Your task to perform on an android device: Add "usb-b" to the cart on amazon Image 0: 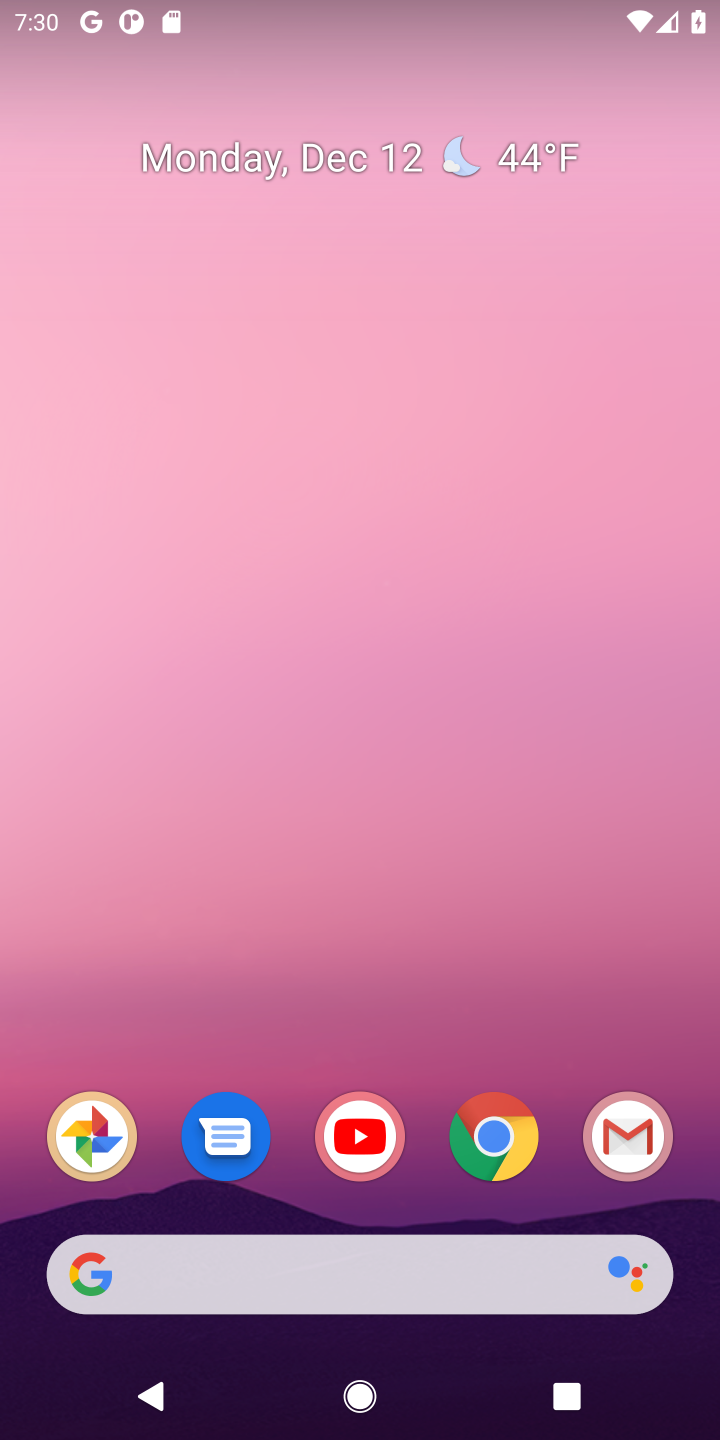
Step 0: click (499, 1143)
Your task to perform on an android device: Add "usb-b" to the cart on amazon Image 1: 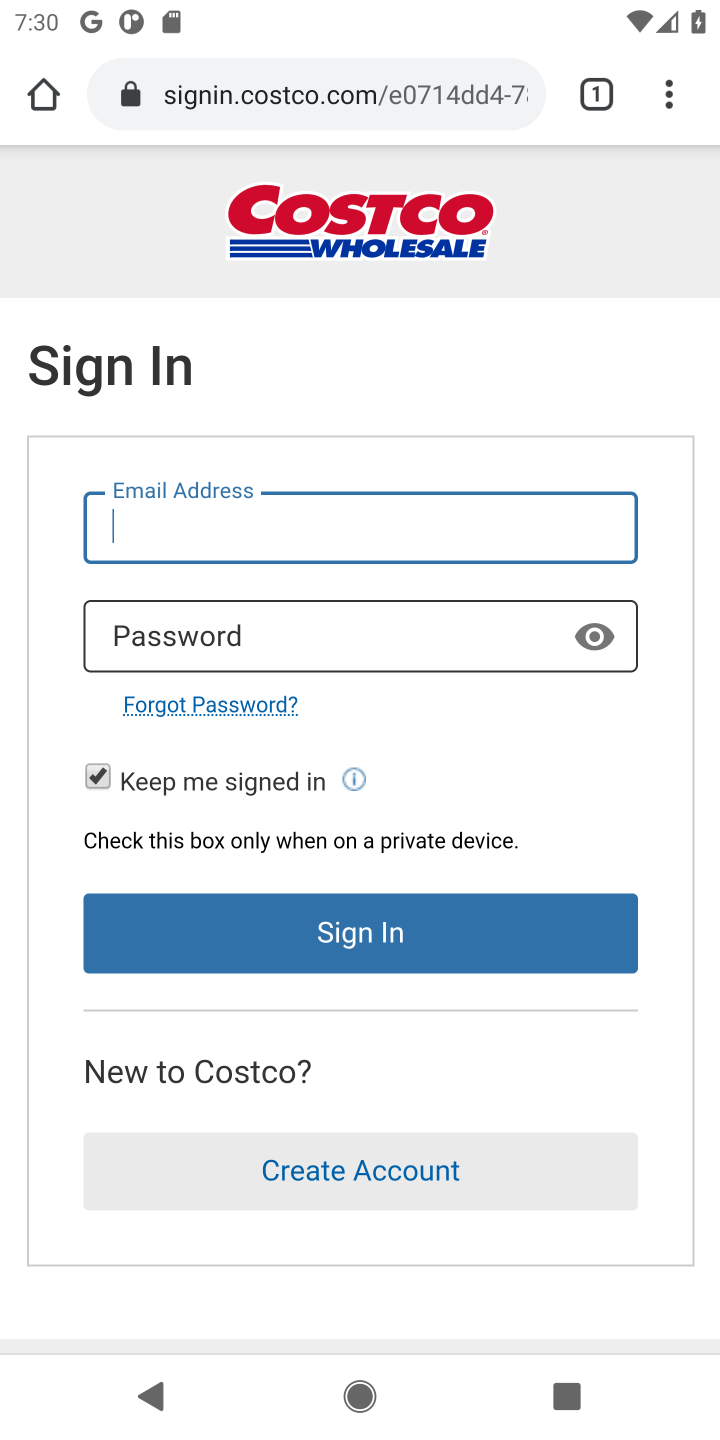
Step 1: click (313, 101)
Your task to perform on an android device: Add "usb-b" to the cart on amazon Image 2: 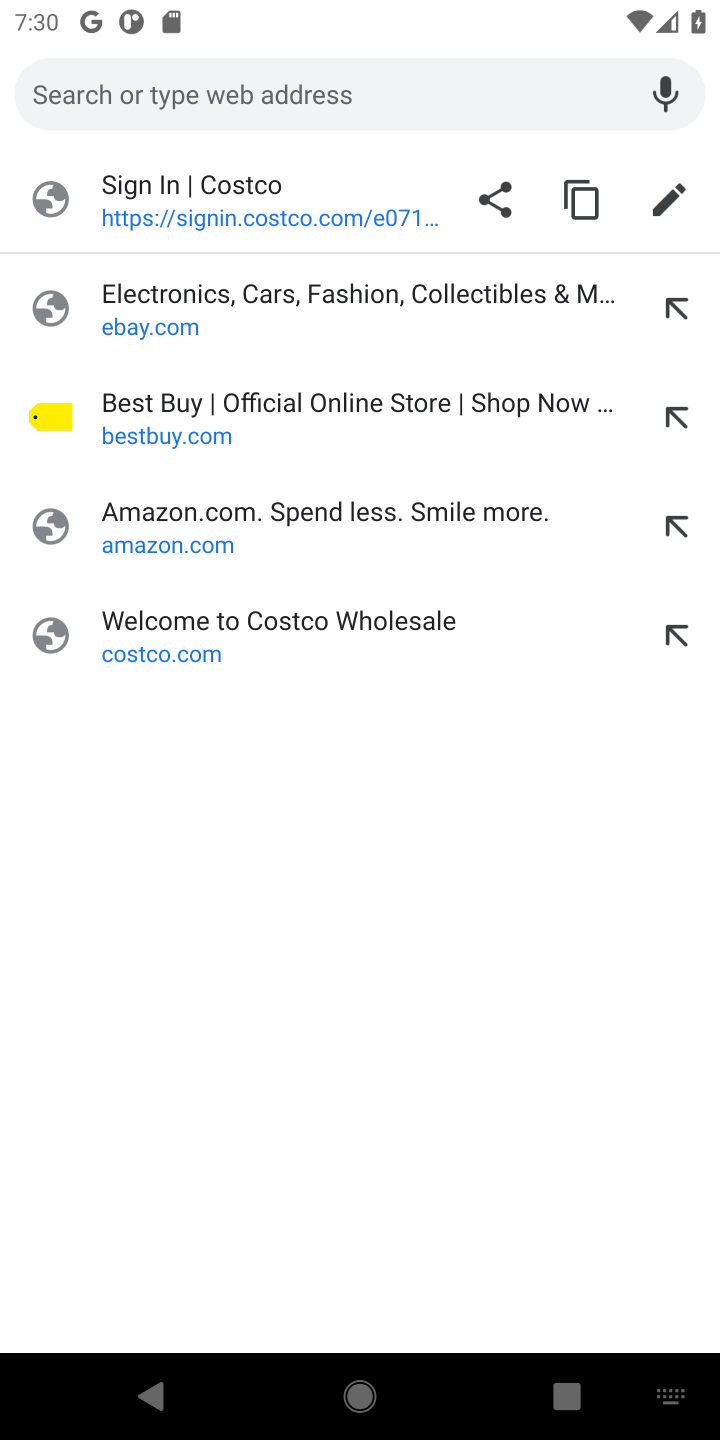
Step 2: click (142, 532)
Your task to perform on an android device: Add "usb-b" to the cart on amazon Image 3: 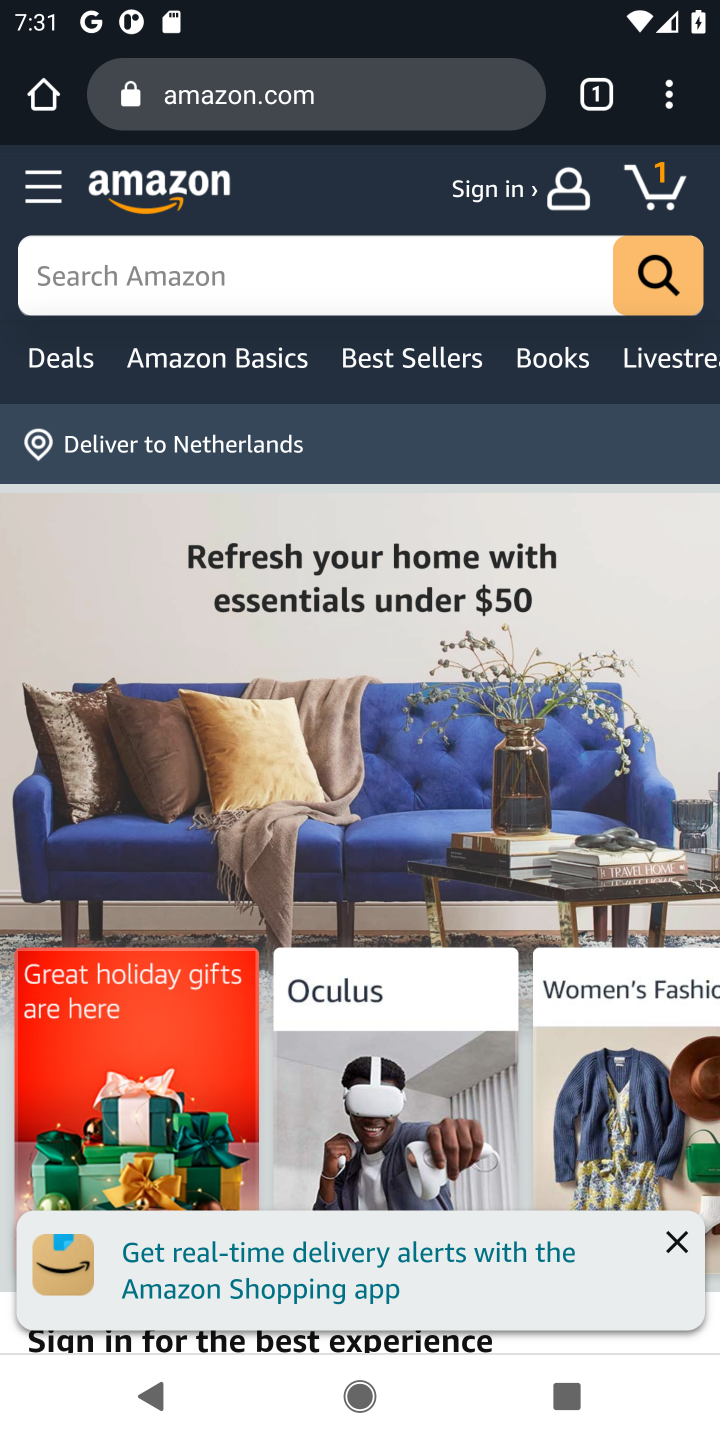
Step 3: click (187, 288)
Your task to perform on an android device: Add "usb-b" to the cart on amazon Image 4: 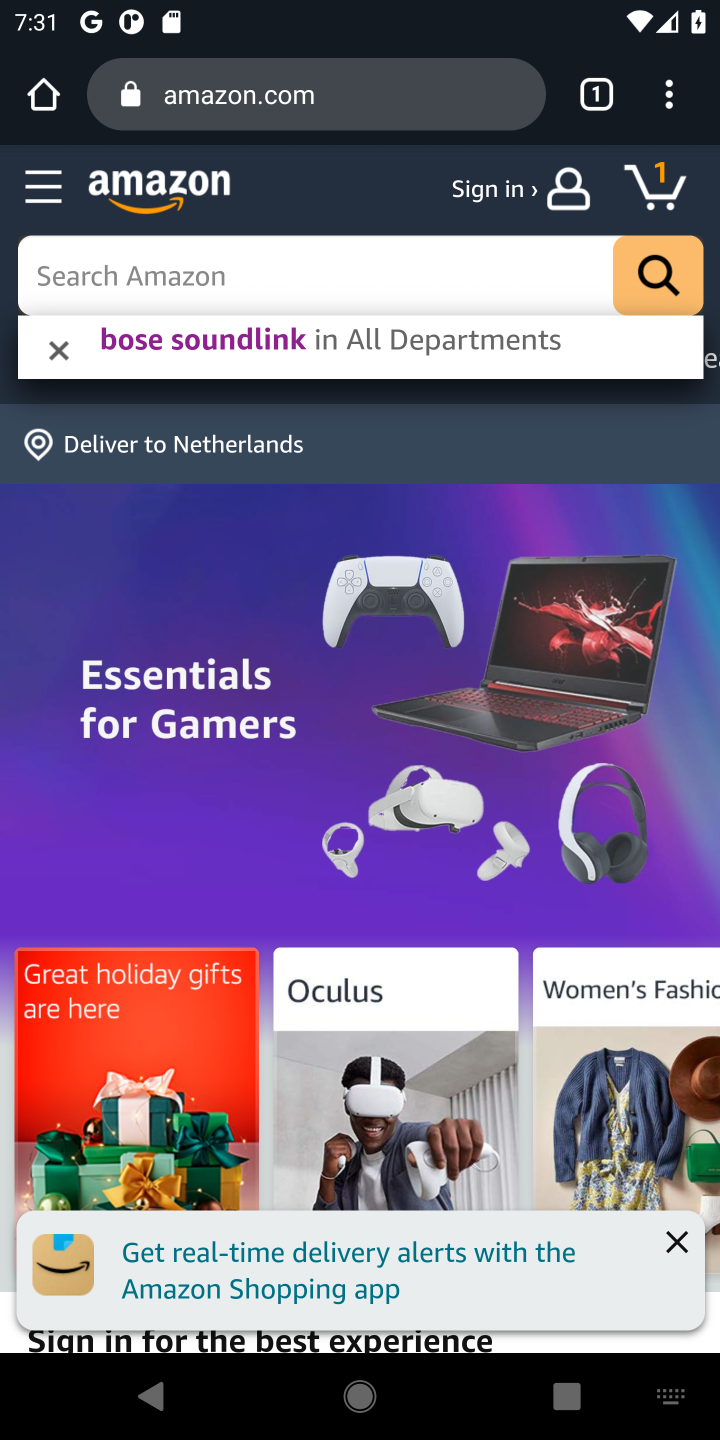
Step 4: type "usb-b"
Your task to perform on an android device: Add "usb-b" to the cart on amazon Image 5: 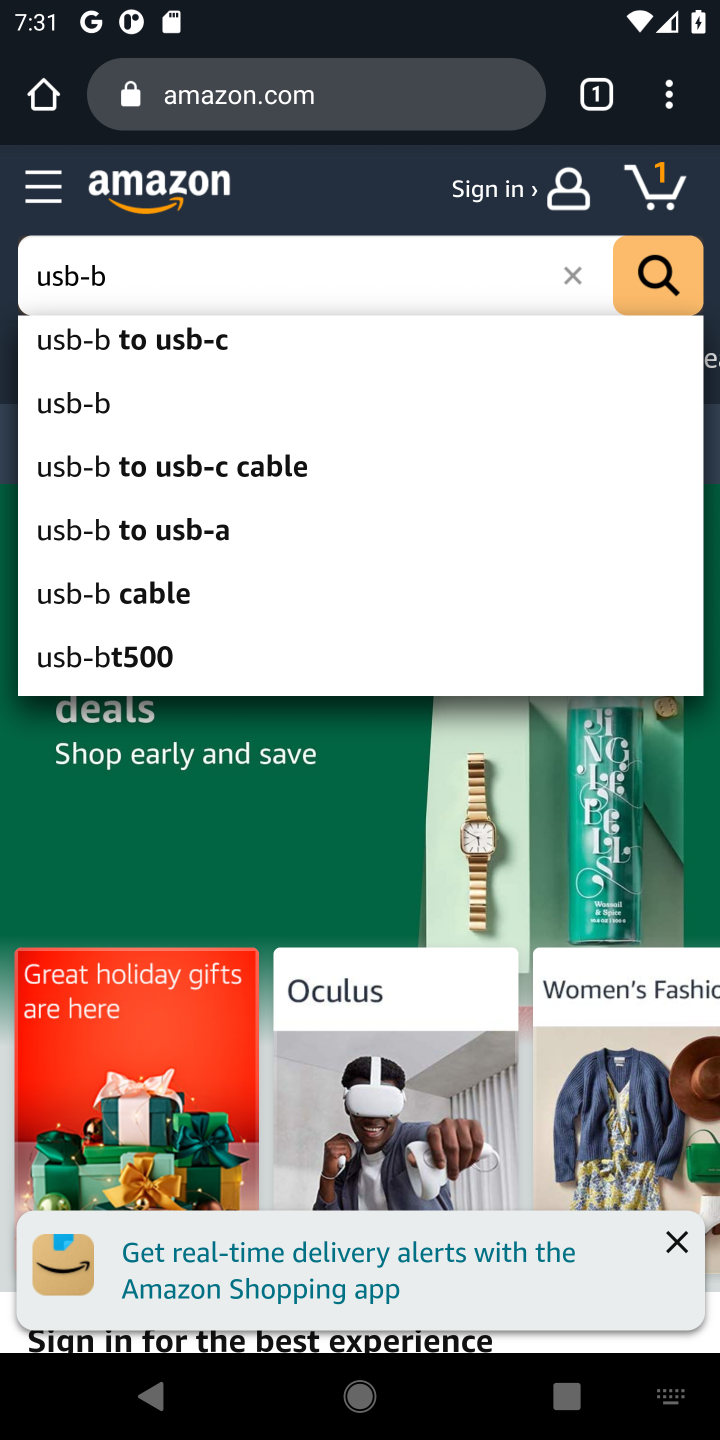
Step 5: click (69, 412)
Your task to perform on an android device: Add "usb-b" to the cart on amazon Image 6: 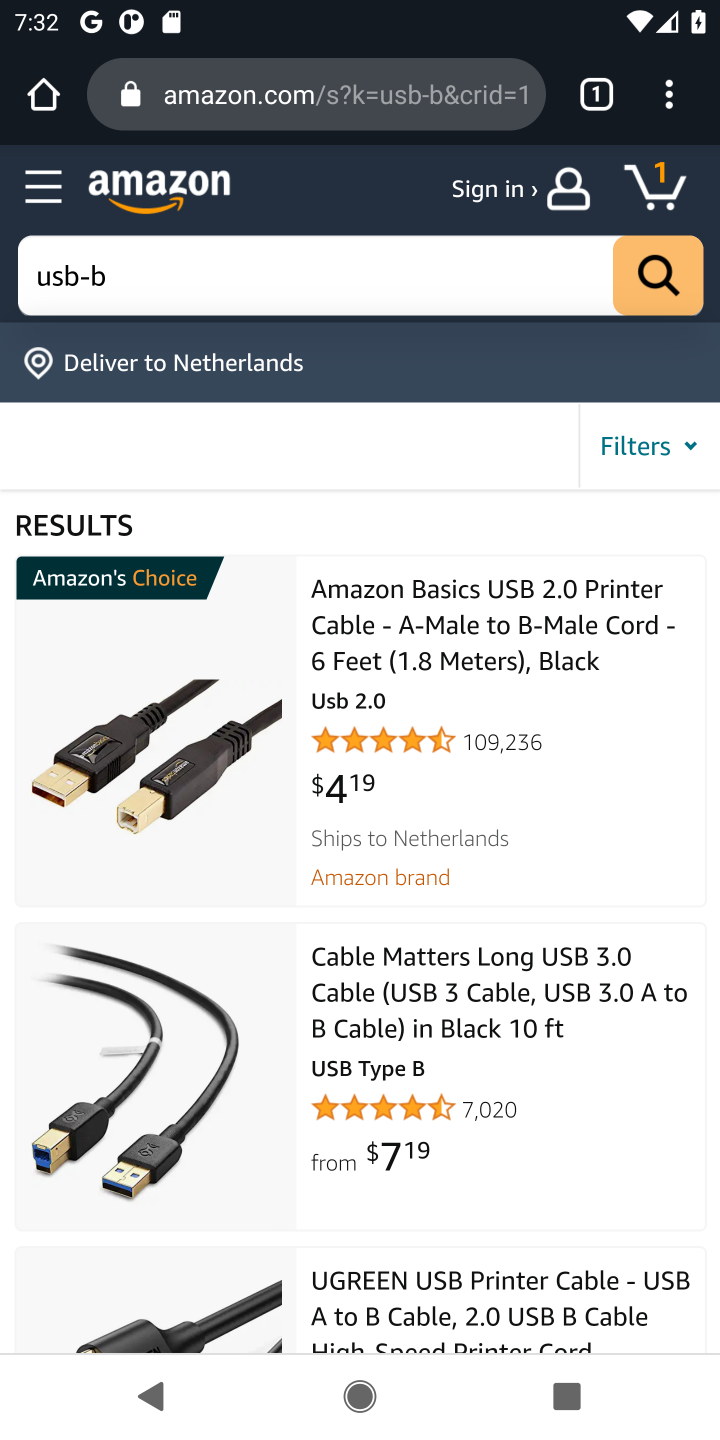
Step 6: drag from (359, 987) to (386, 750)
Your task to perform on an android device: Add "usb-b" to the cart on amazon Image 7: 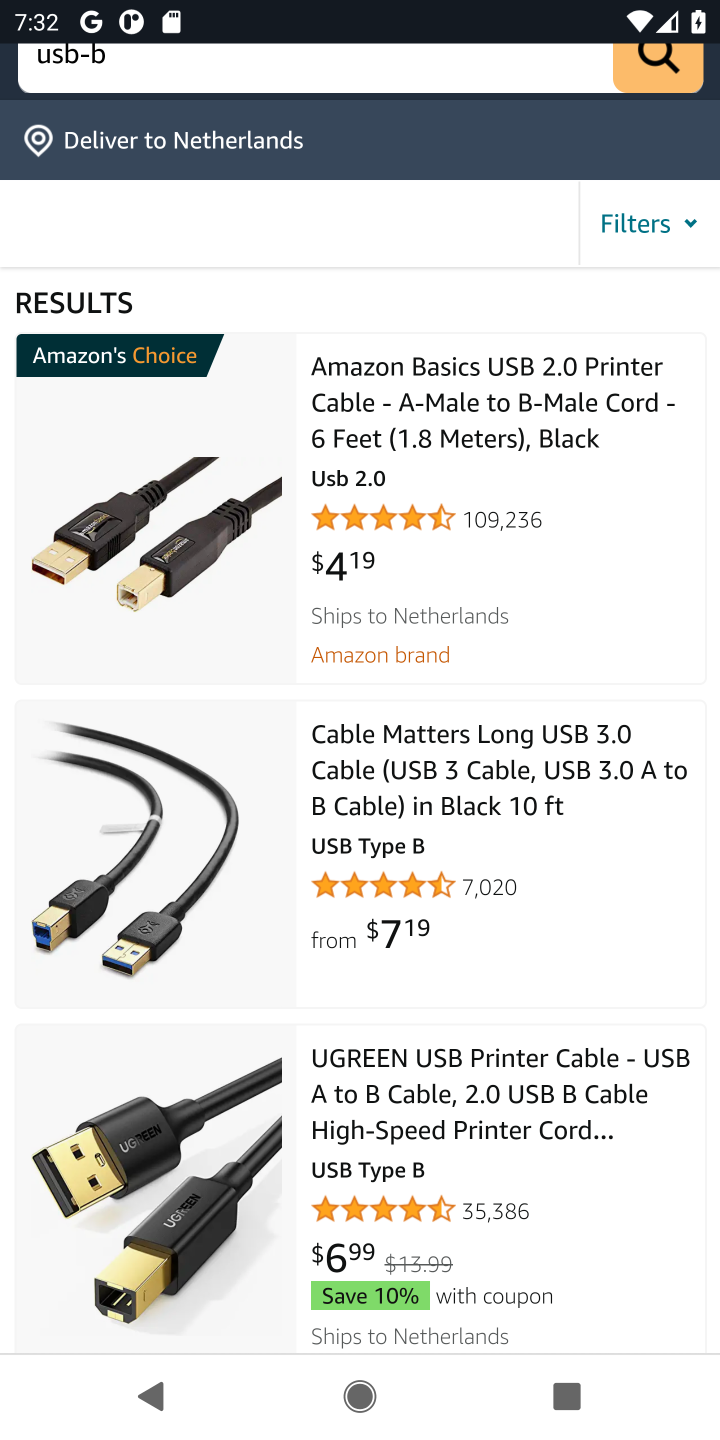
Step 7: click (371, 802)
Your task to perform on an android device: Add "usb-b" to the cart on amazon Image 8: 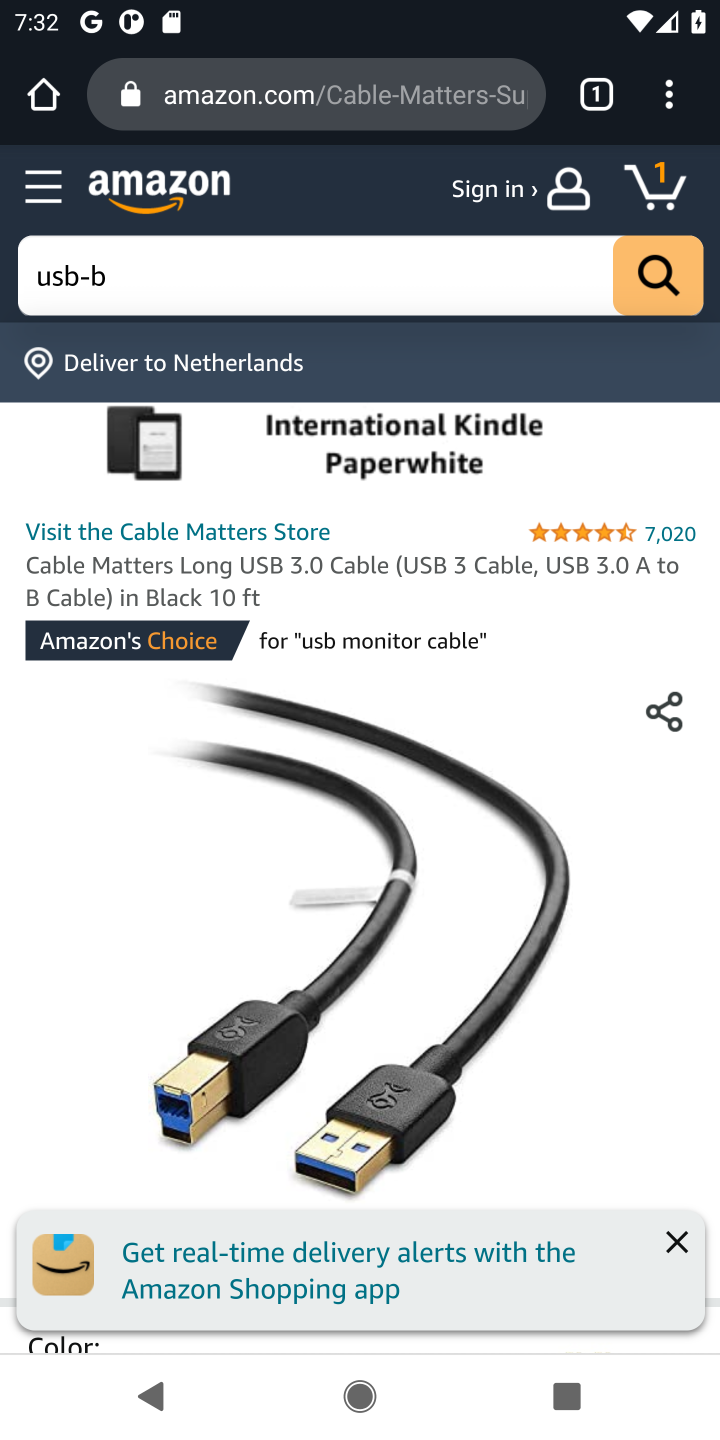
Step 8: drag from (363, 1016) to (348, 464)
Your task to perform on an android device: Add "usb-b" to the cart on amazon Image 9: 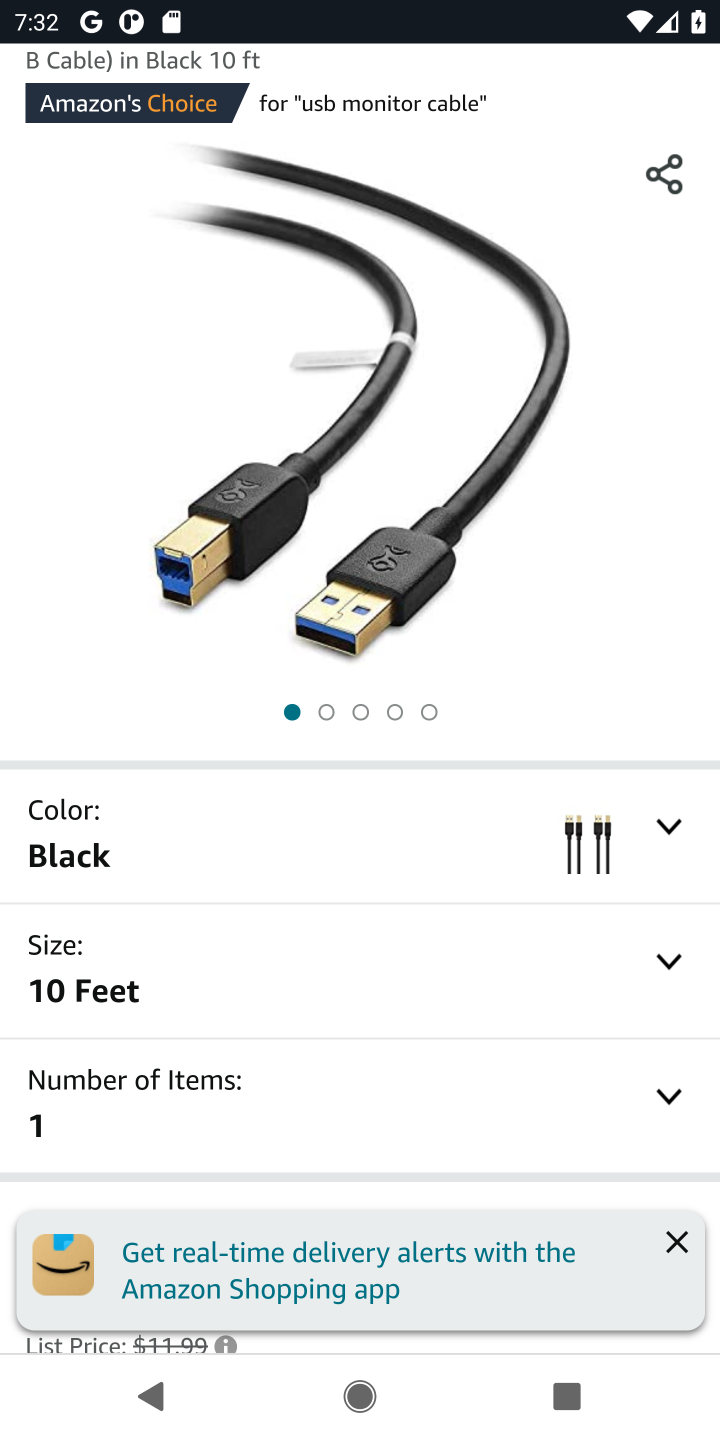
Step 9: drag from (328, 1019) to (336, 490)
Your task to perform on an android device: Add "usb-b" to the cart on amazon Image 10: 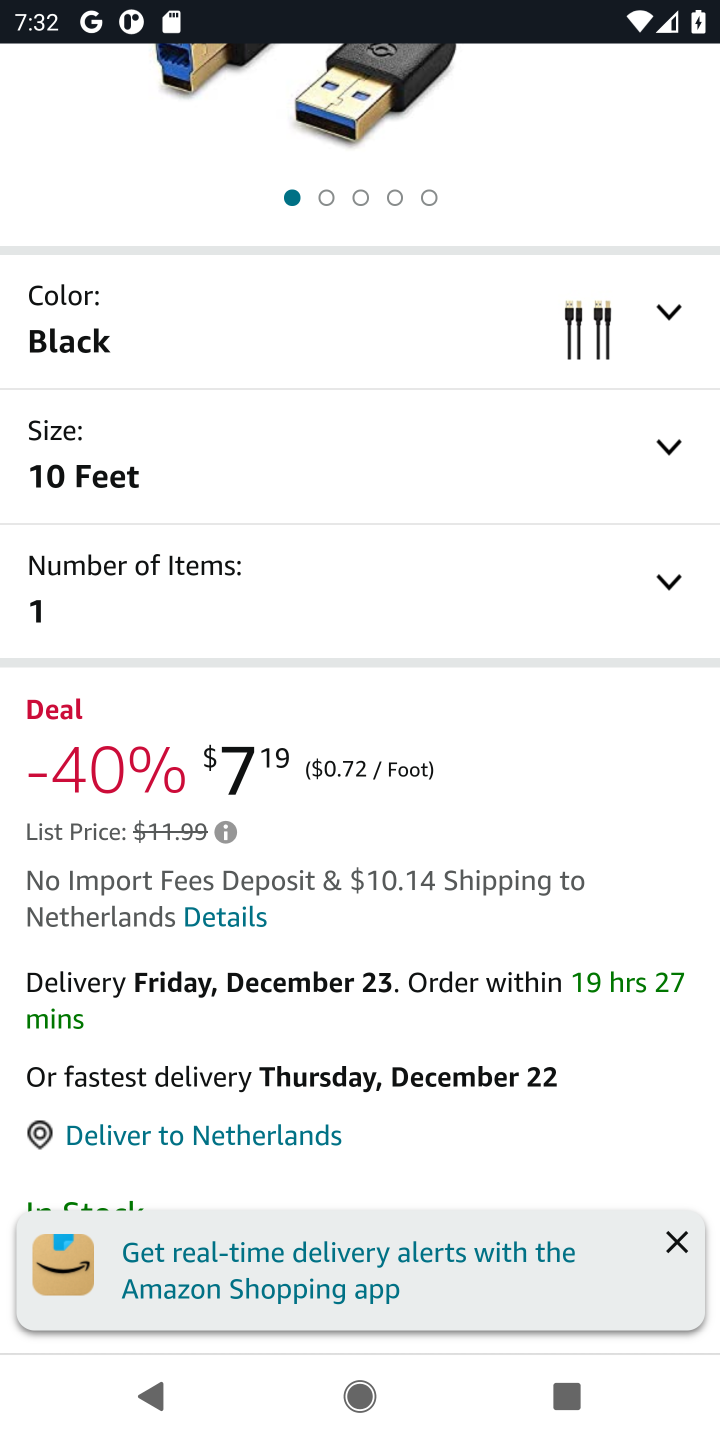
Step 10: drag from (350, 949) to (364, 536)
Your task to perform on an android device: Add "usb-b" to the cart on amazon Image 11: 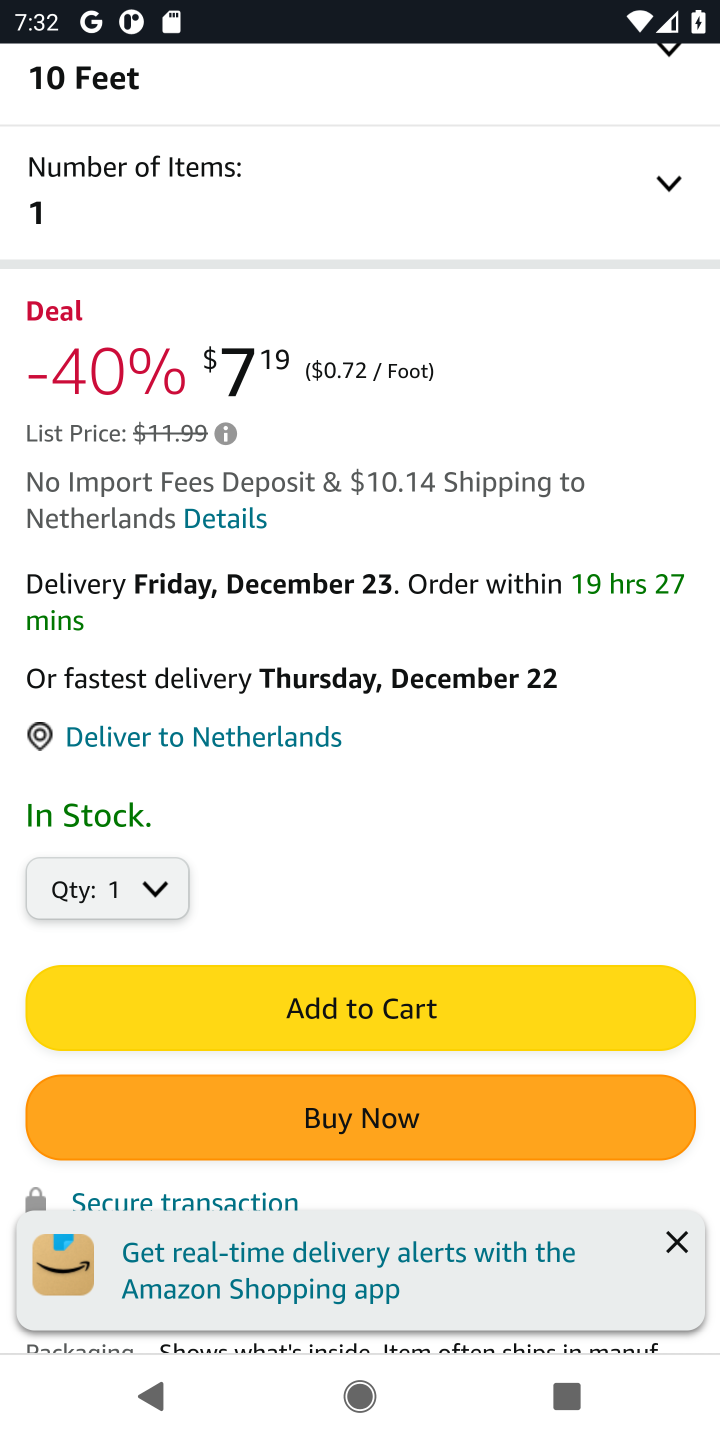
Step 11: click (297, 1016)
Your task to perform on an android device: Add "usb-b" to the cart on amazon Image 12: 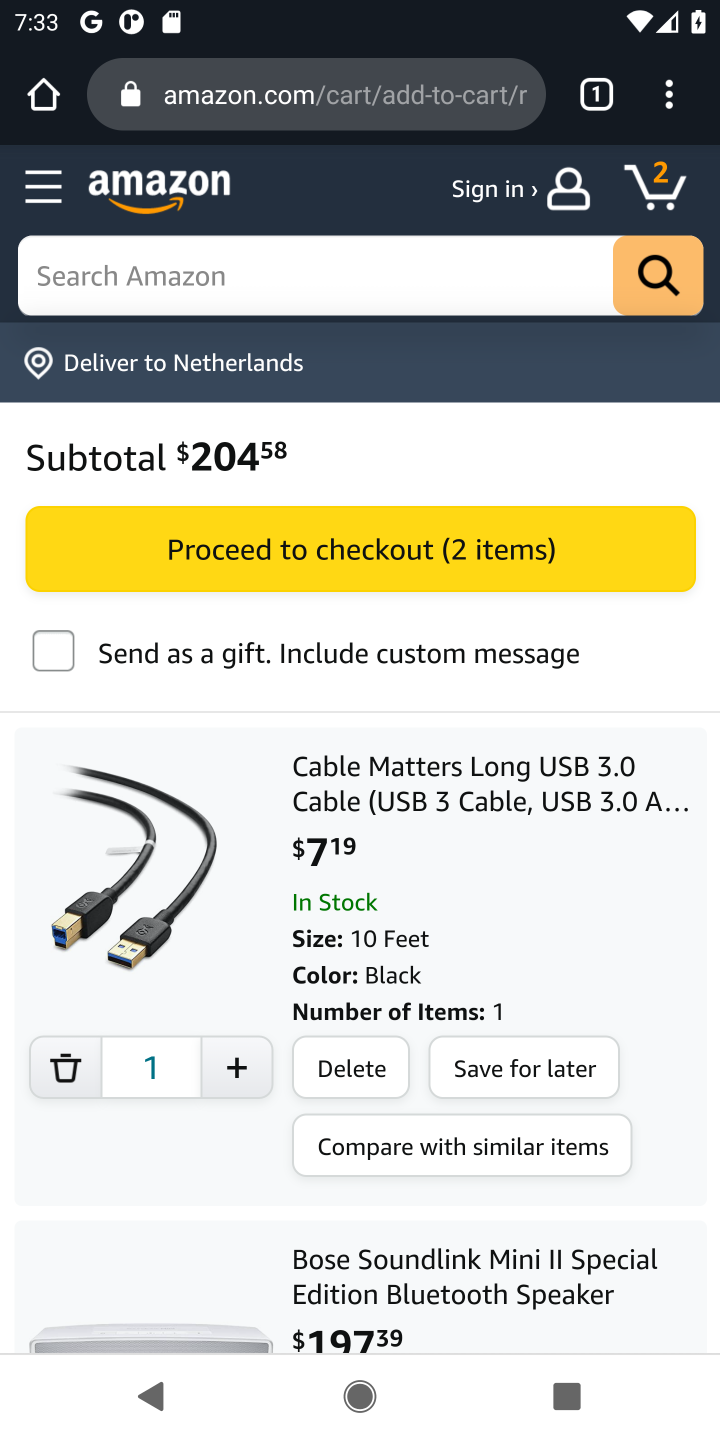
Step 12: task complete